Your task to perform on an android device: install app "DuckDuckGo Privacy Browser" Image 0: 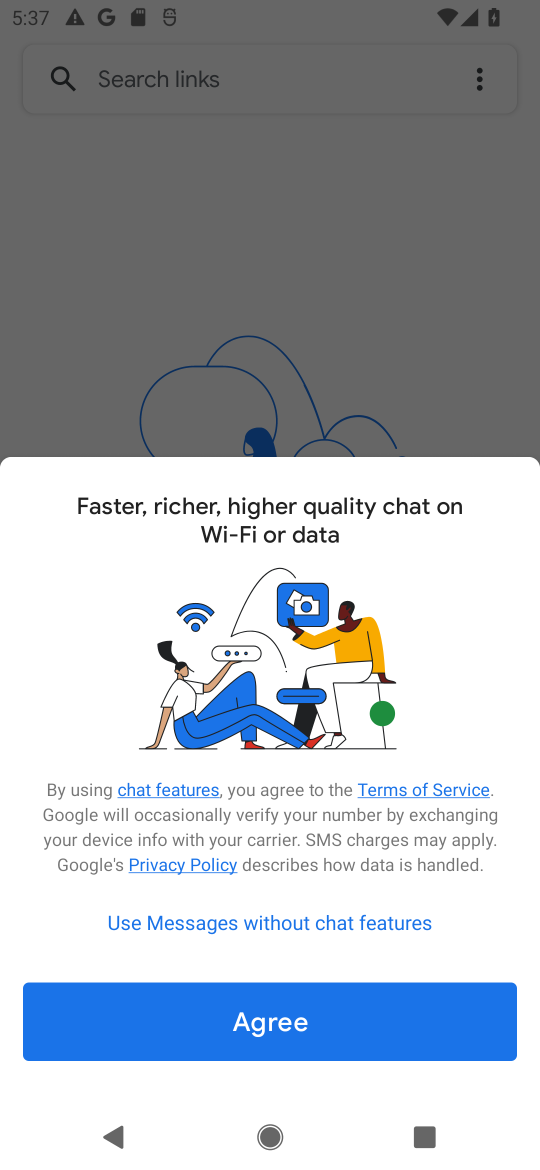
Step 0: press home button
Your task to perform on an android device: install app "DuckDuckGo Privacy Browser" Image 1: 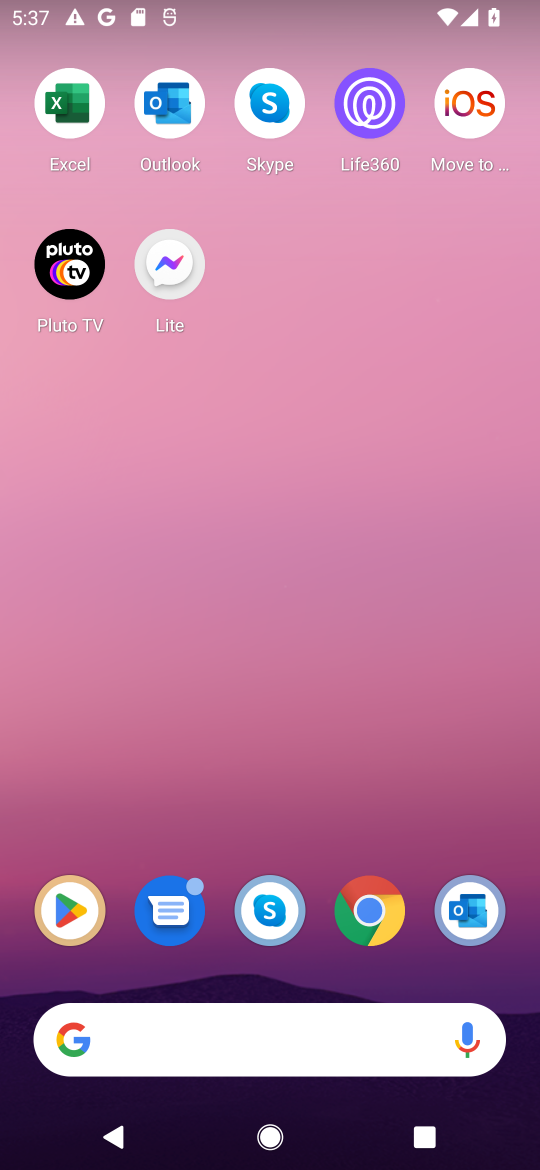
Step 1: drag from (220, 1011) to (204, 139)
Your task to perform on an android device: install app "DuckDuckGo Privacy Browser" Image 2: 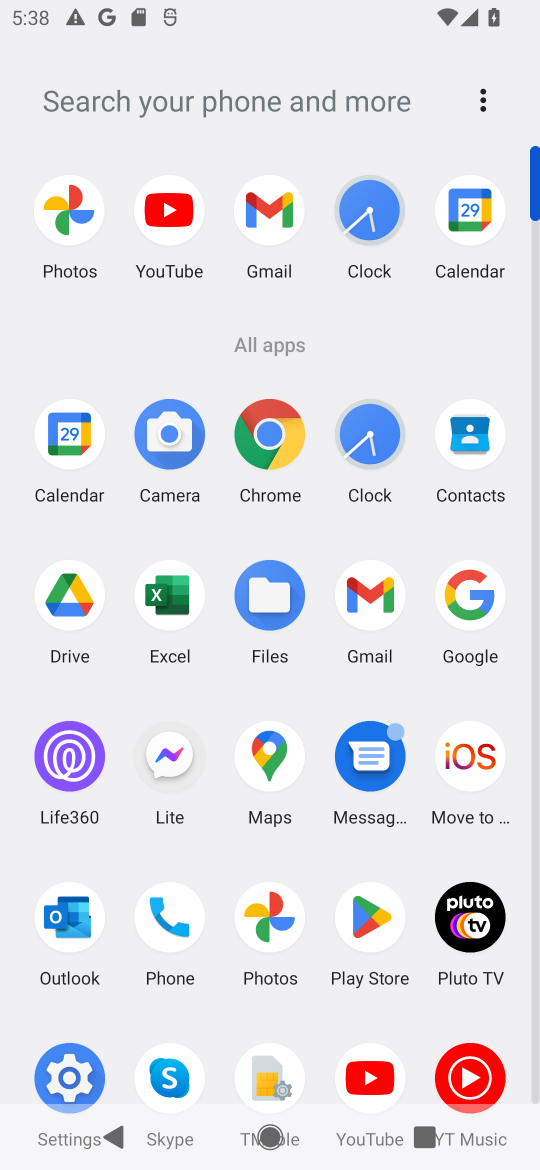
Step 2: click (373, 930)
Your task to perform on an android device: install app "DuckDuckGo Privacy Browser" Image 3: 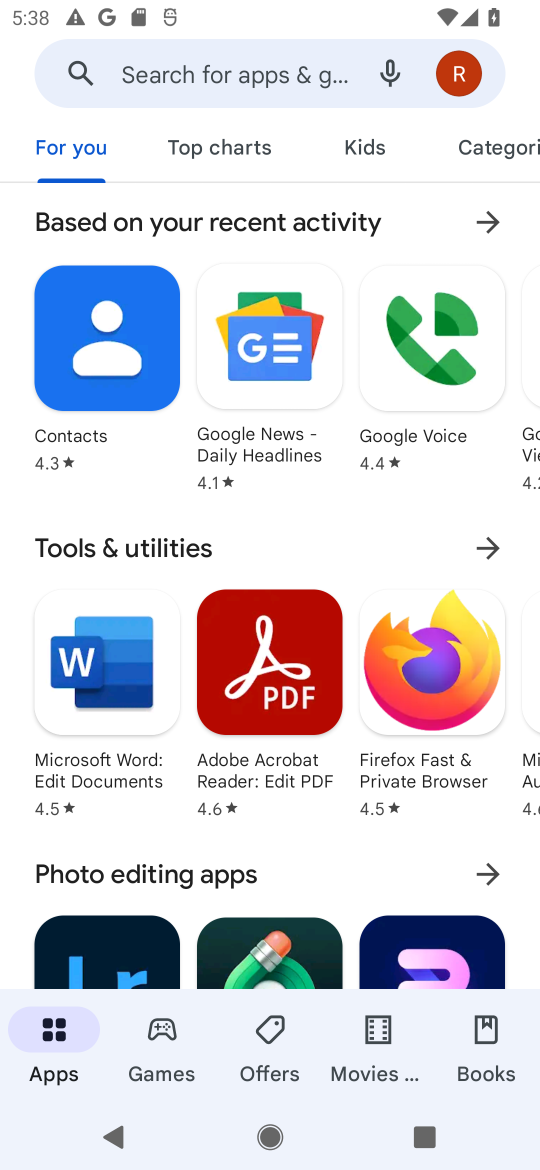
Step 3: click (210, 70)
Your task to perform on an android device: install app "DuckDuckGo Privacy Browser" Image 4: 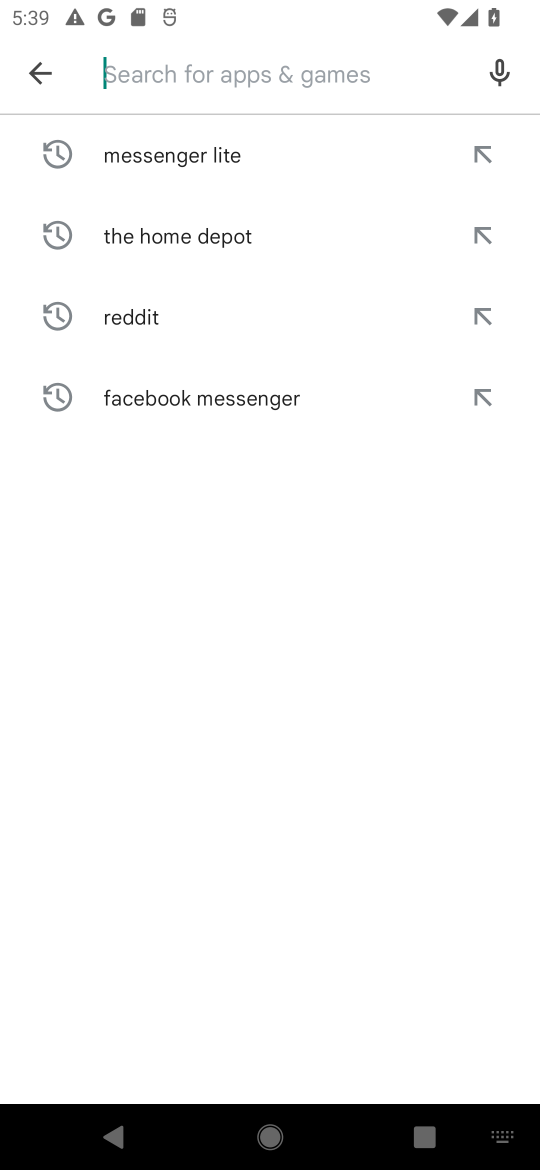
Step 4: type "DuckDuckGo Privacy Browser"
Your task to perform on an android device: install app "DuckDuckGo Privacy Browser" Image 5: 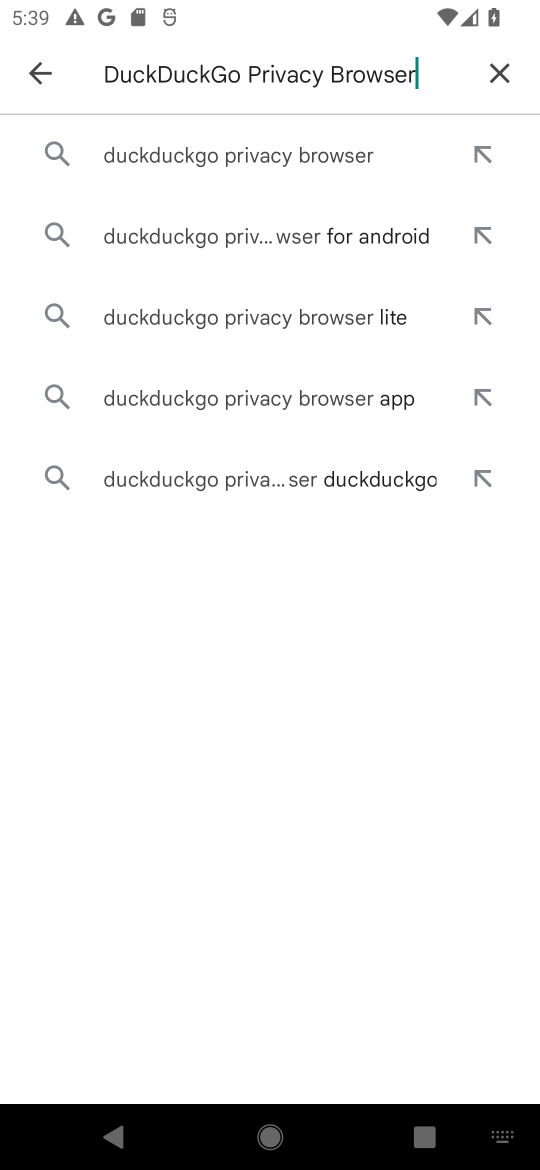
Step 5: click (167, 155)
Your task to perform on an android device: install app "DuckDuckGo Privacy Browser" Image 6: 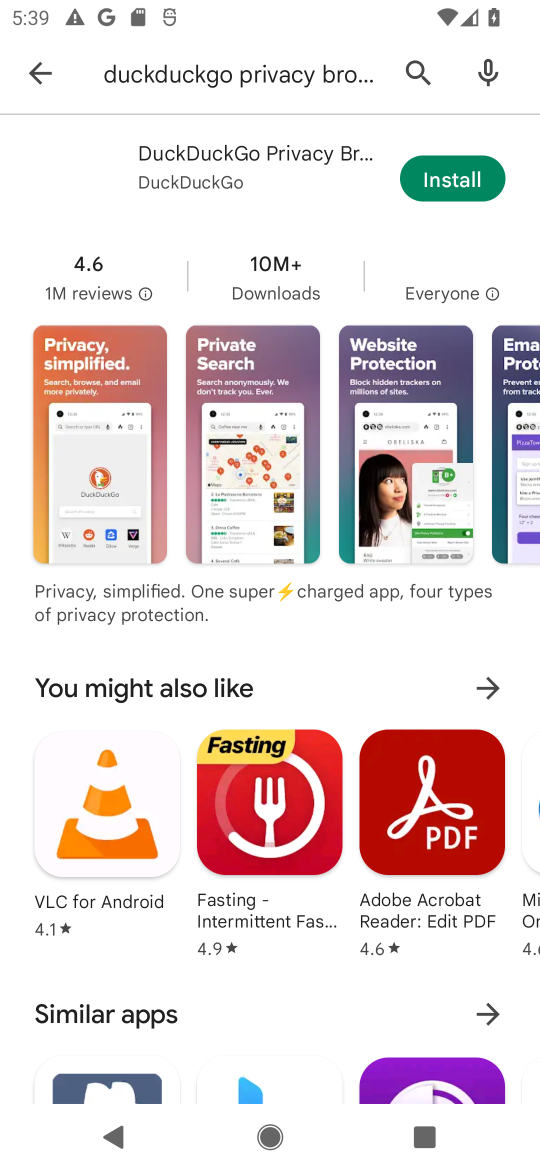
Step 6: click (458, 176)
Your task to perform on an android device: install app "DuckDuckGo Privacy Browser" Image 7: 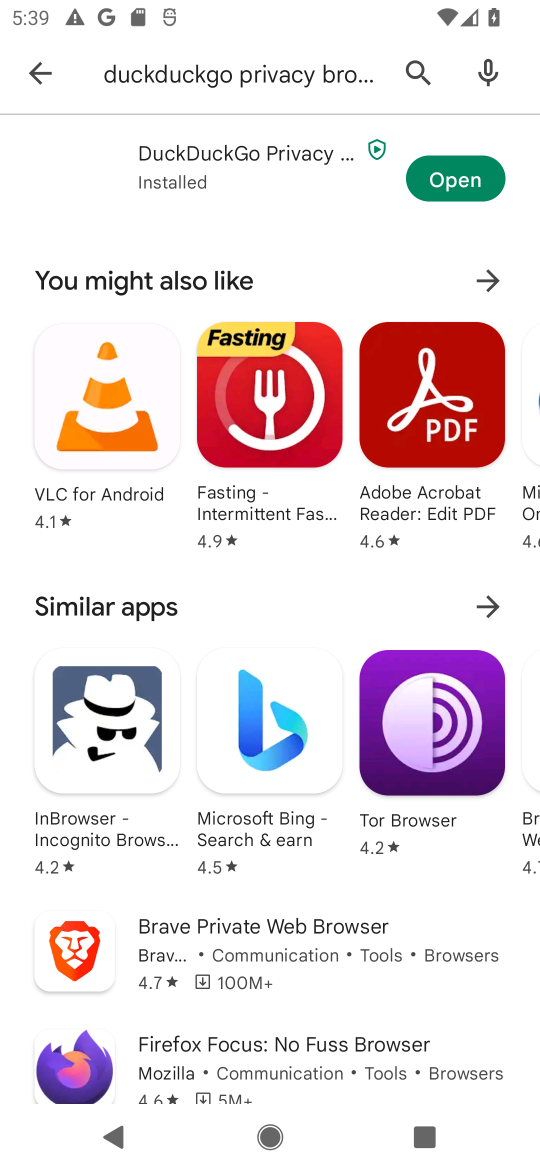
Step 7: click (447, 177)
Your task to perform on an android device: install app "DuckDuckGo Privacy Browser" Image 8: 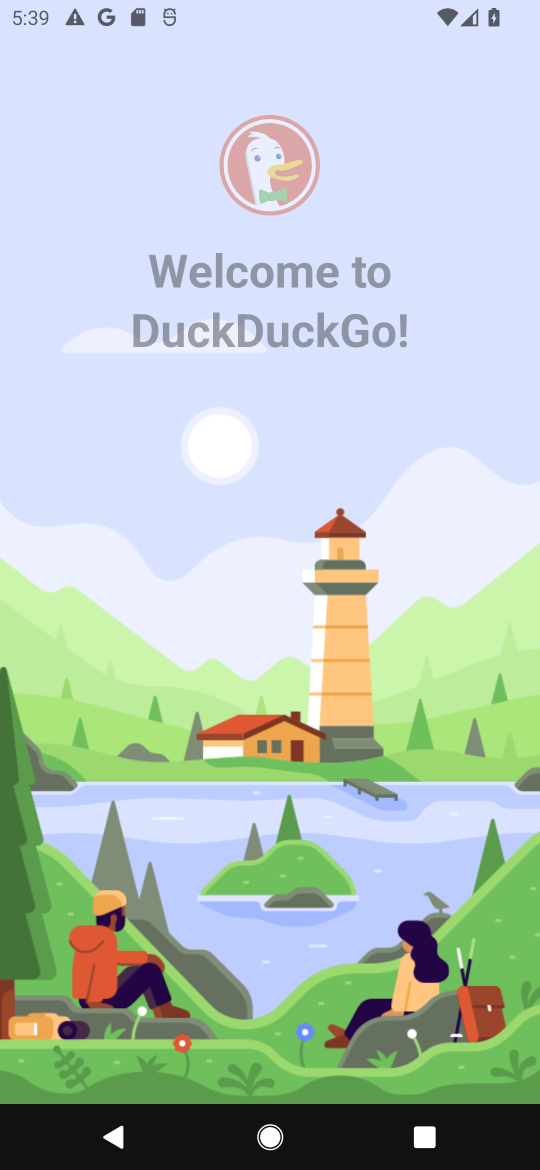
Step 8: task complete